Your task to perform on an android device: delete browsing data in the chrome app Image 0: 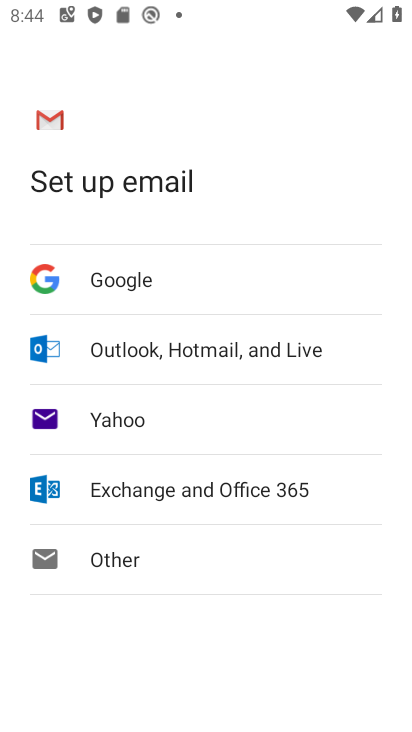
Step 0: press home button
Your task to perform on an android device: delete browsing data in the chrome app Image 1: 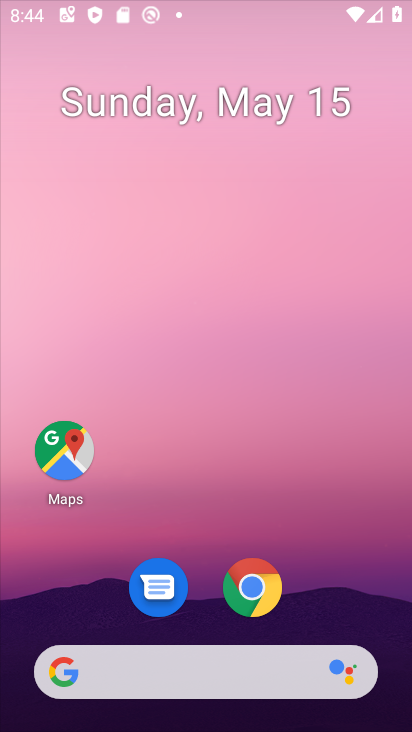
Step 1: drag from (407, 591) to (276, 52)
Your task to perform on an android device: delete browsing data in the chrome app Image 2: 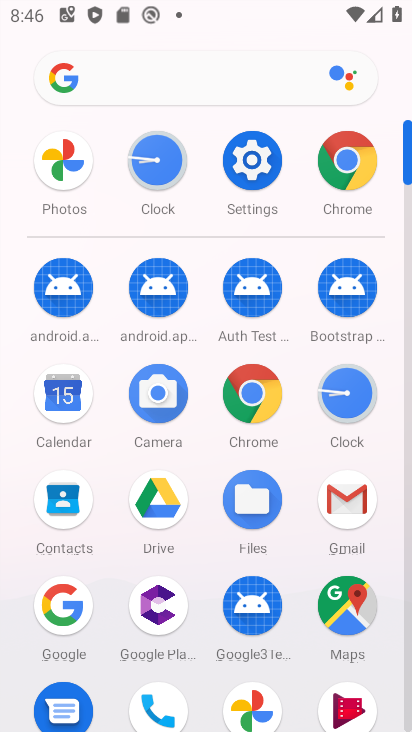
Step 2: click (259, 386)
Your task to perform on an android device: delete browsing data in the chrome app Image 3: 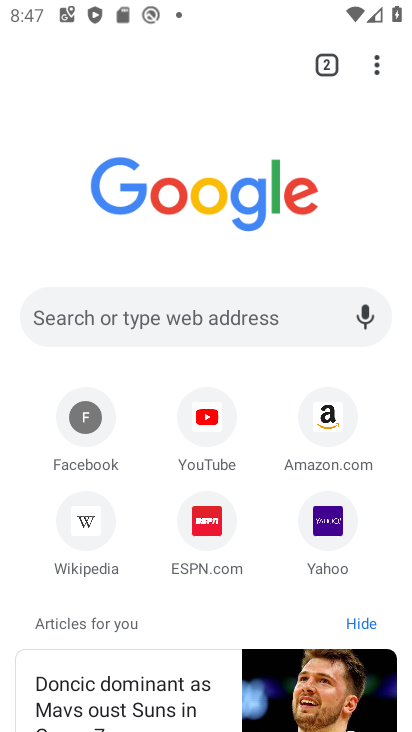
Step 3: click (383, 52)
Your task to perform on an android device: delete browsing data in the chrome app Image 4: 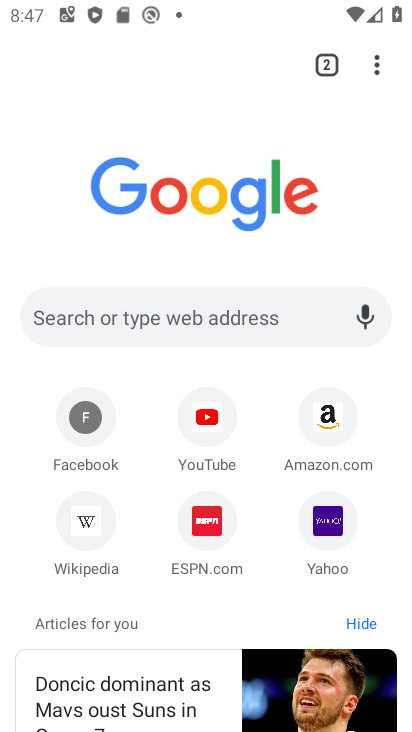
Step 4: click (383, 52)
Your task to perform on an android device: delete browsing data in the chrome app Image 5: 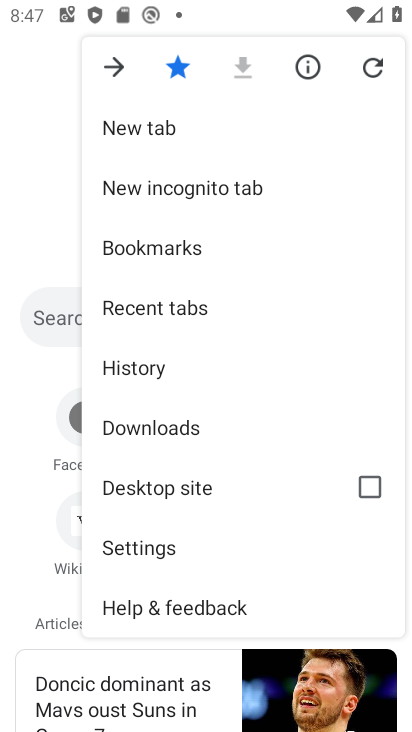
Step 5: click (212, 372)
Your task to perform on an android device: delete browsing data in the chrome app Image 6: 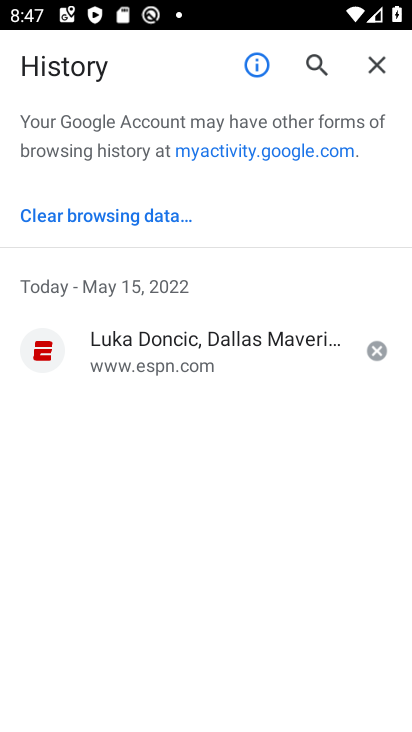
Step 6: click (103, 208)
Your task to perform on an android device: delete browsing data in the chrome app Image 7: 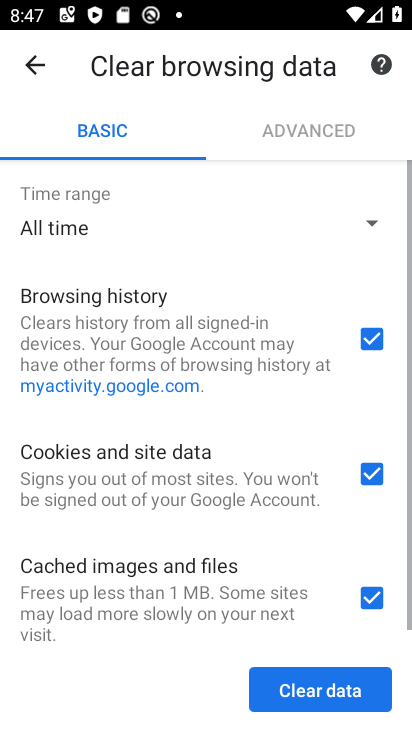
Step 7: click (329, 691)
Your task to perform on an android device: delete browsing data in the chrome app Image 8: 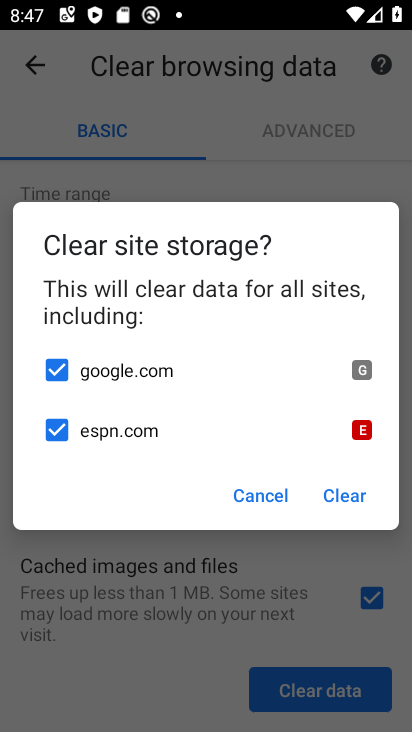
Step 8: click (338, 491)
Your task to perform on an android device: delete browsing data in the chrome app Image 9: 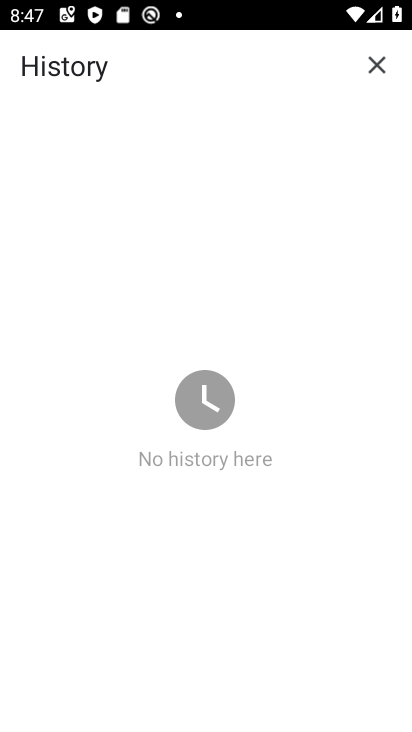
Step 9: task complete